Your task to perform on an android device: choose inbox layout in the gmail app Image 0: 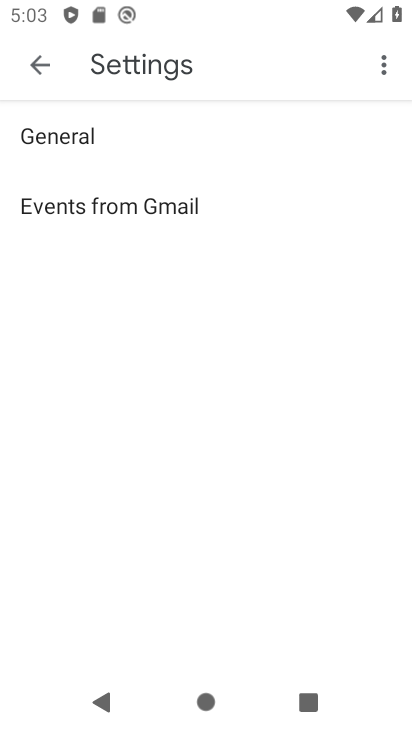
Step 0: press home button
Your task to perform on an android device: choose inbox layout in the gmail app Image 1: 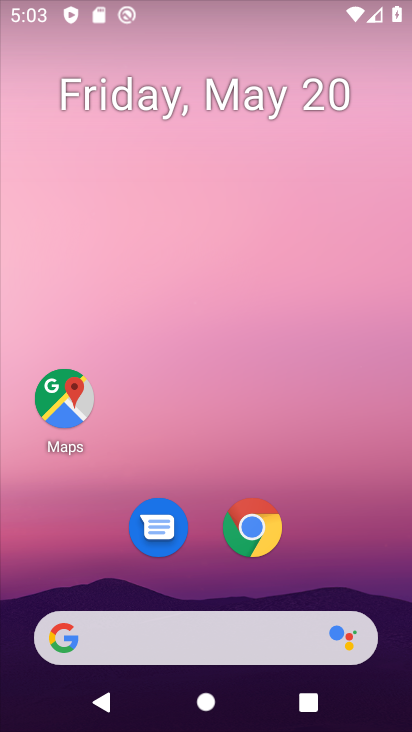
Step 1: drag from (379, 633) to (378, 15)
Your task to perform on an android device: choose inbox layout in the gmail app Image 2: 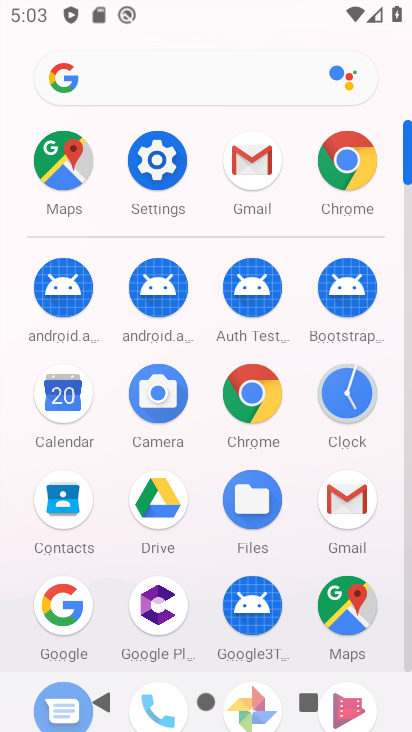
Step 2: click (342, 503)
Your task to perform on an android device: choose inbox layout in the gmail app Image 3: 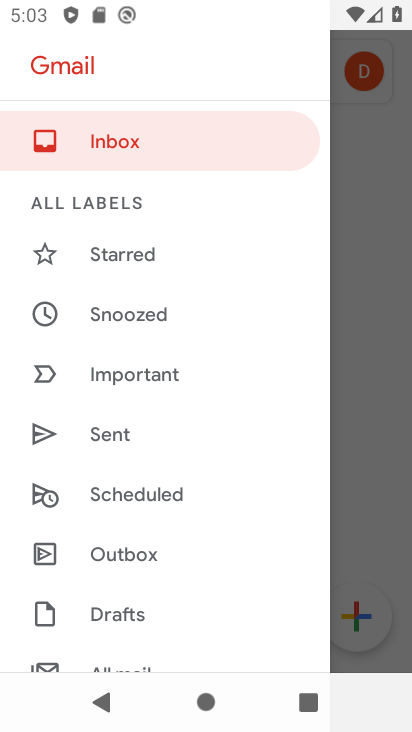
Step 3: drag from (215, 574) to (258, 11)
Your task to perform on an android device: choose inbox layout in the gmail app Image 4: 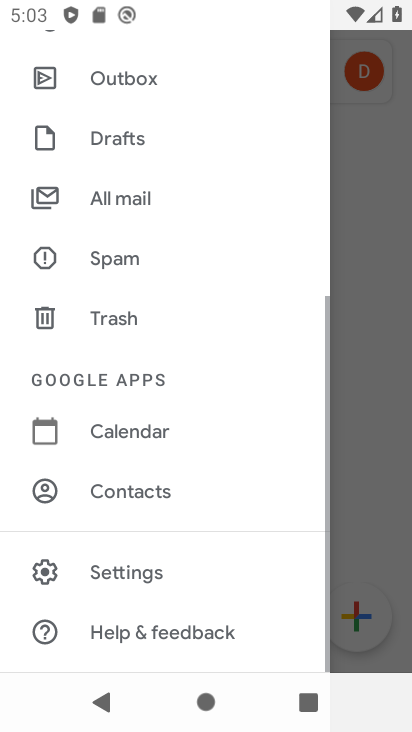
Step 4: click (151, 578)
Your task to perform on an android device: choose inbox layout in the gmail app Image 5: 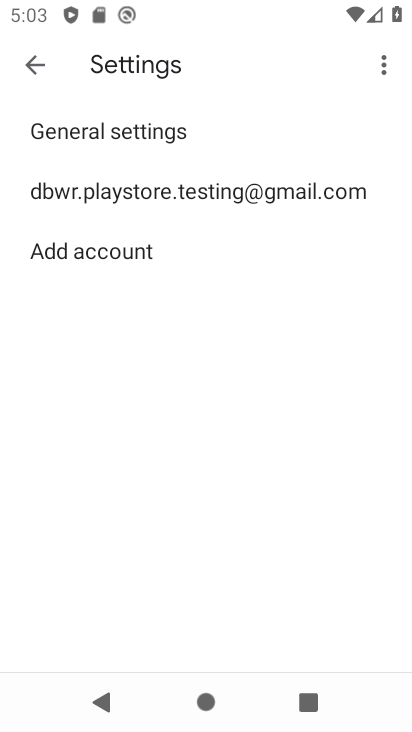
Step 5: click (183, 185)
Your task to perform on an android device: choose inbox layout in the gmail app Image 6: 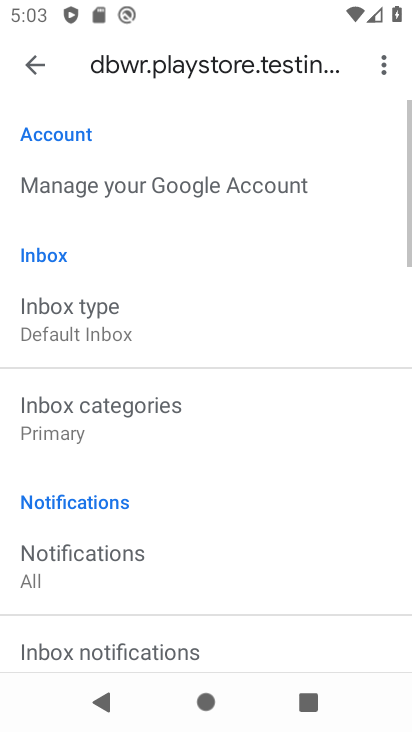
Step 6: click (133, 333)
Your task to perform on an android device: choose inbox layout in the gmail app Image 7: 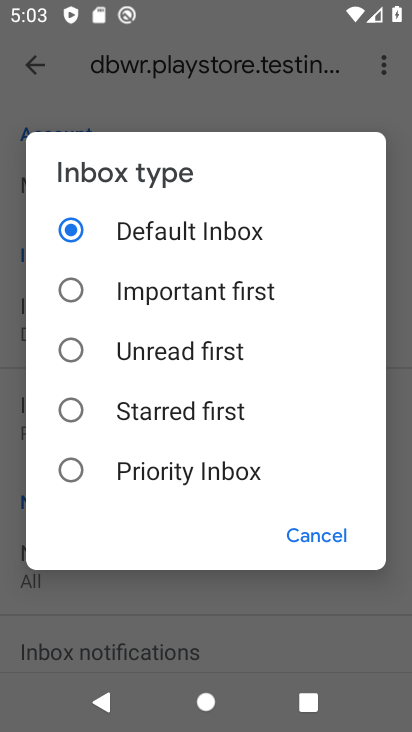
Step 7: click (74, 284)
Your task to perform on an android device: choose inbox layout in the gmail app Image 8: 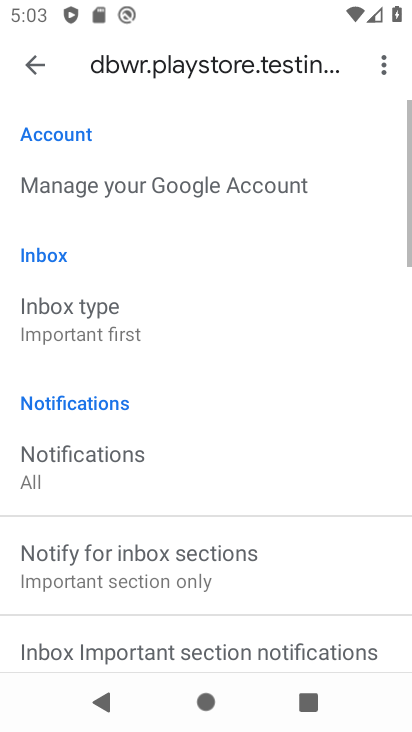
Step 8: task complete